Your task to perform on an android device: Search for vegetarian restaurants on Maps Image 0: 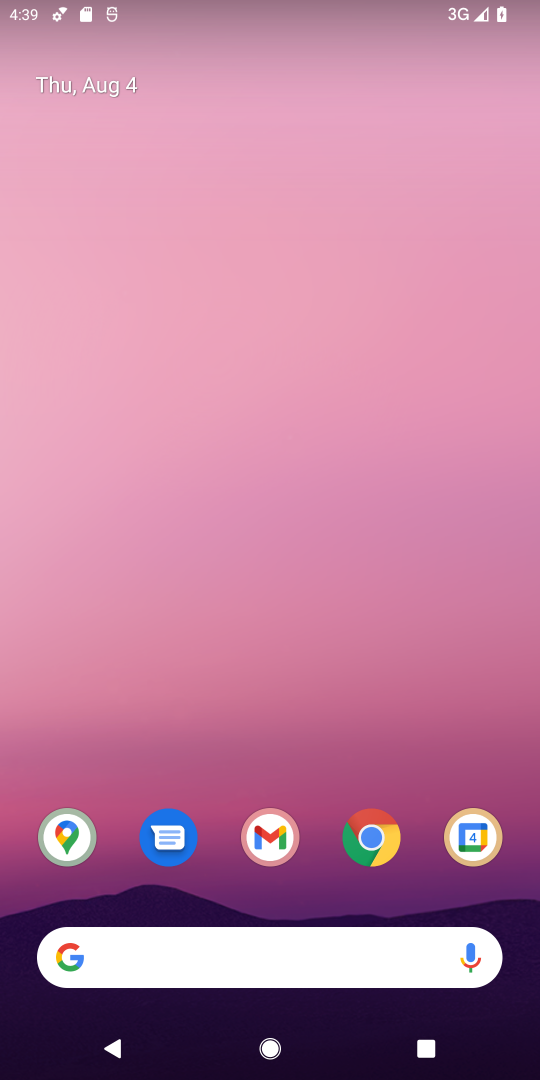
Step 0: click (75, 825)
Your task to perform on an android device: Search for vegetarian restaurants on Maps Image 1: 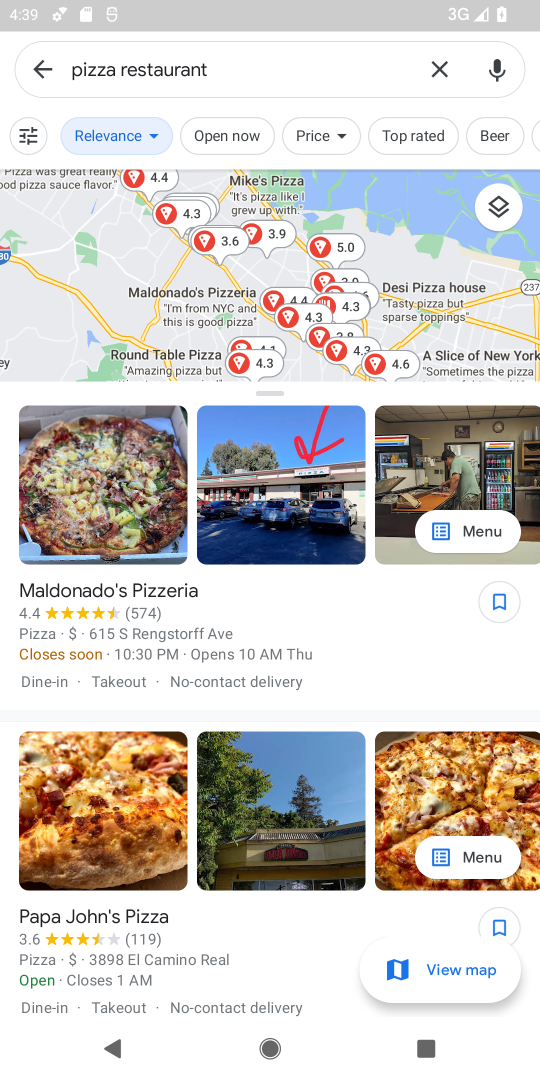
Step 1: click (339, 72)
Your task to perform on an android device: Search for vegetarian restaurants on Maps Image 2: 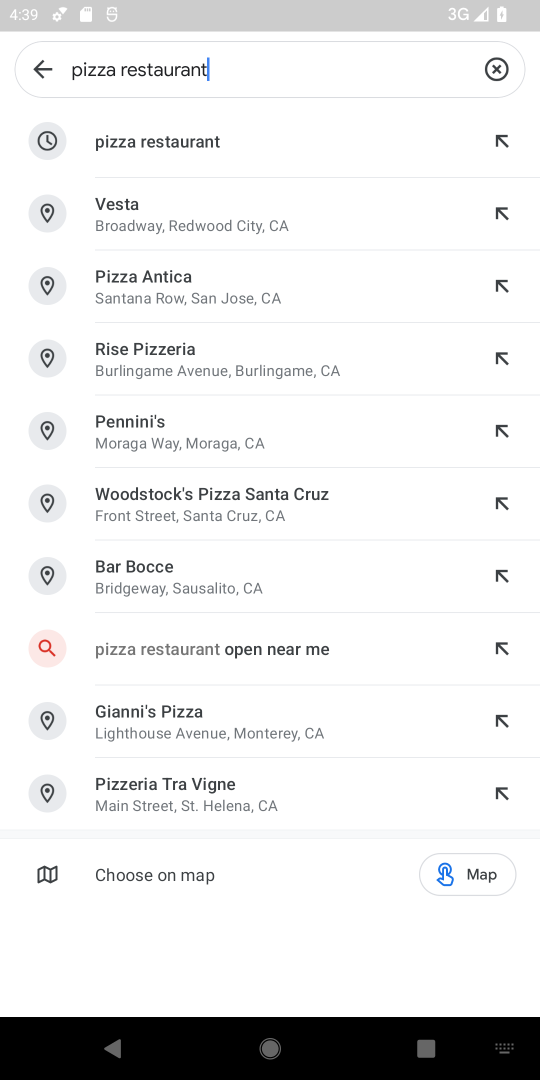
Step 2: click (502, 60)
Your task to perform on an android device: Search for vegetarian restaurants on Maps Image 3: 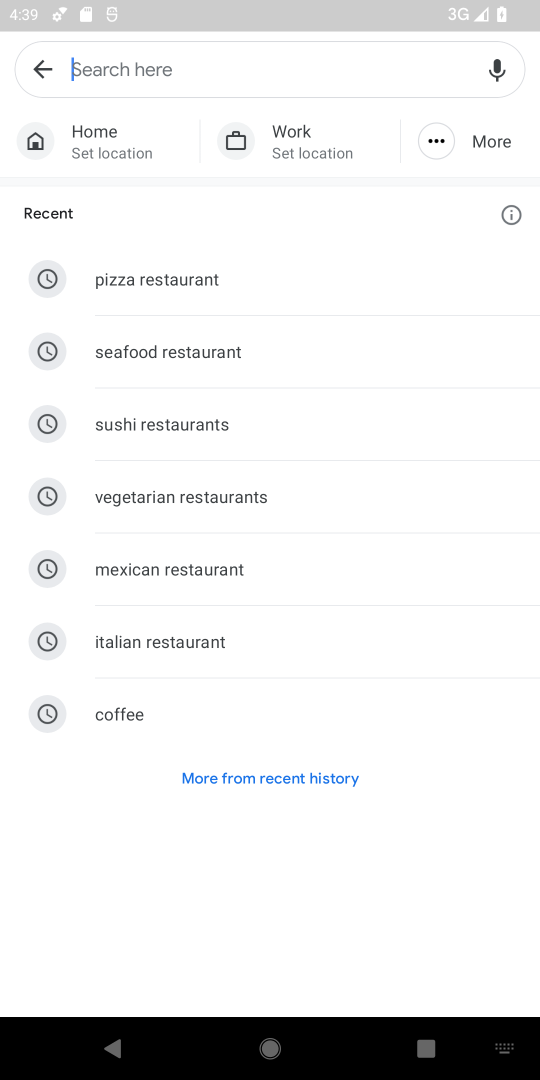
Step 3: type "vegetarian restaurants"
Your task to perform on an android device: Search for vegetarian restaurants on Maps Image 4: 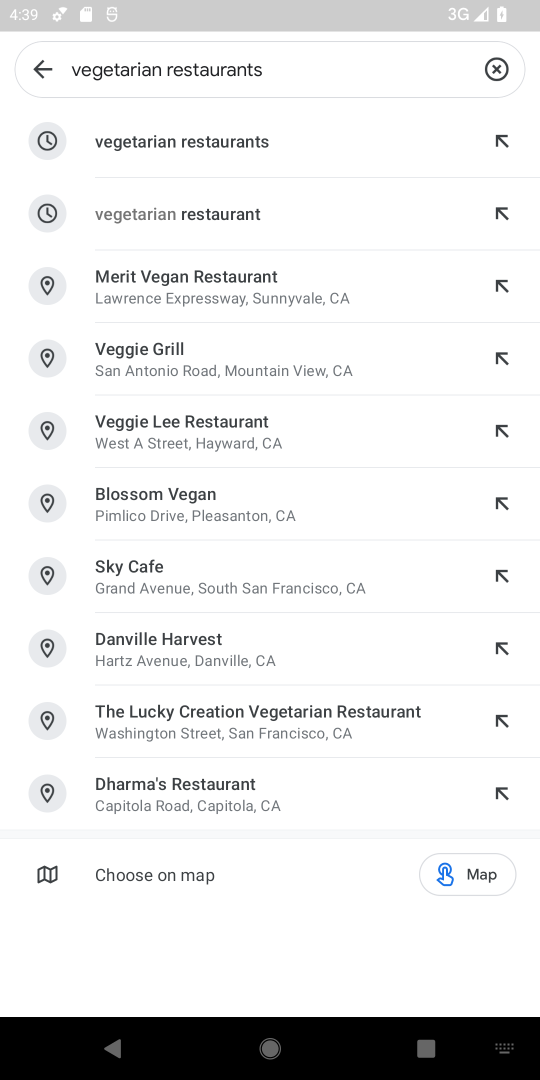
Step 4: click (236, 149)
Your task to perform on an android device: Search for vegetarian restaurants on Maps Image 5: 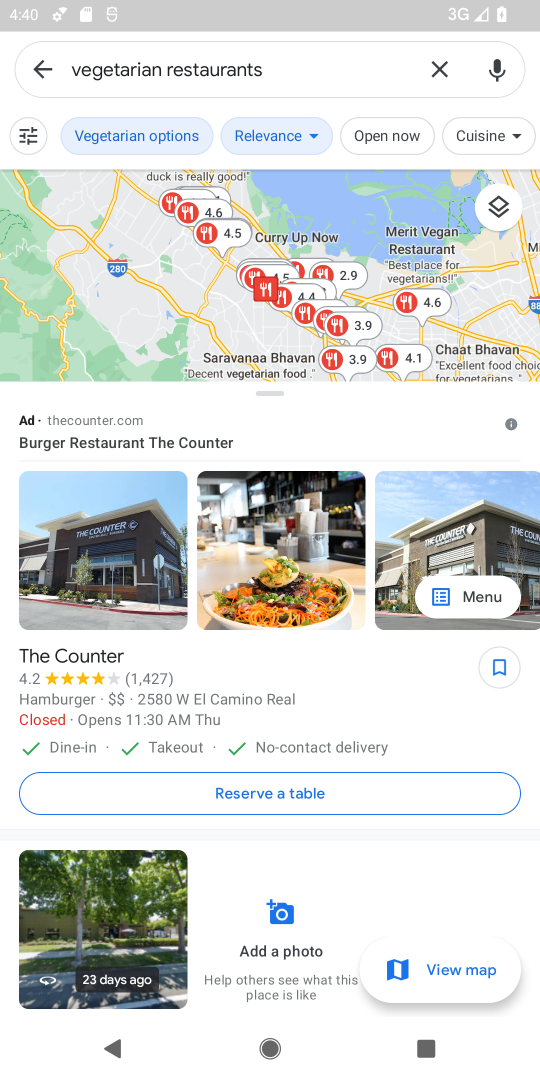
Step 5: task complete